Your task to perform on an android device: turn on showing notifications on the lock screen Image 0: 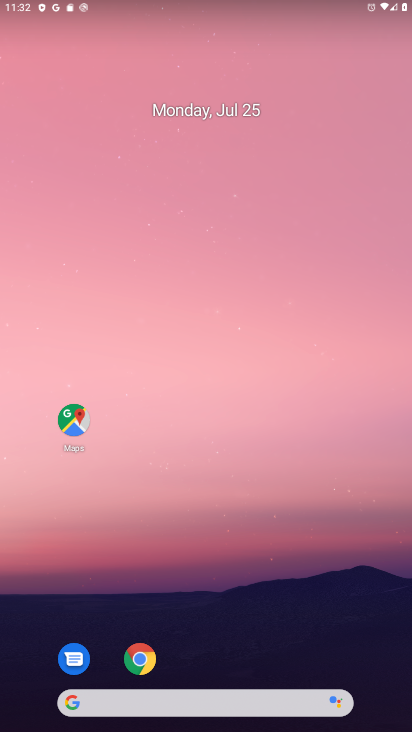
Step 0: drag from (264, 613) to (206, 110)
Your task to perform on an android device: turn on showing notifications on the lock screen Image 1: 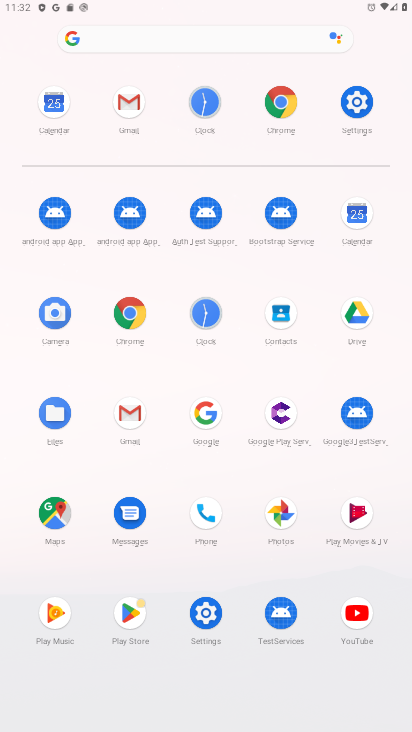
Step 1: click (350, 105)
Your task to perform on an android device: turn on showing notifications on the lock screen Image 2: 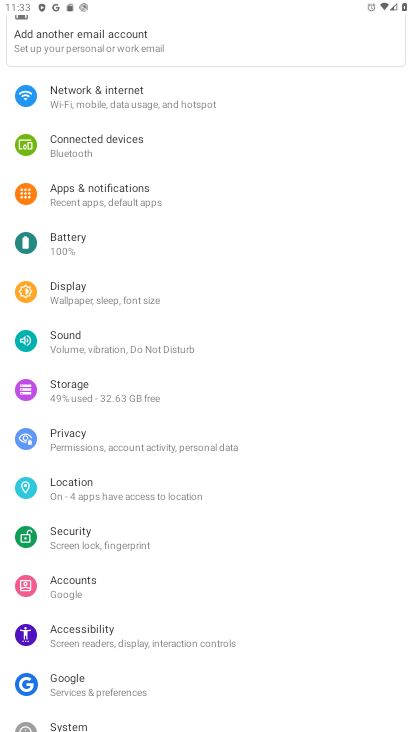
Step 2: click (92, 186)
Your task to perform on an android device: turn on showing notifications on the lock screen Image 3: 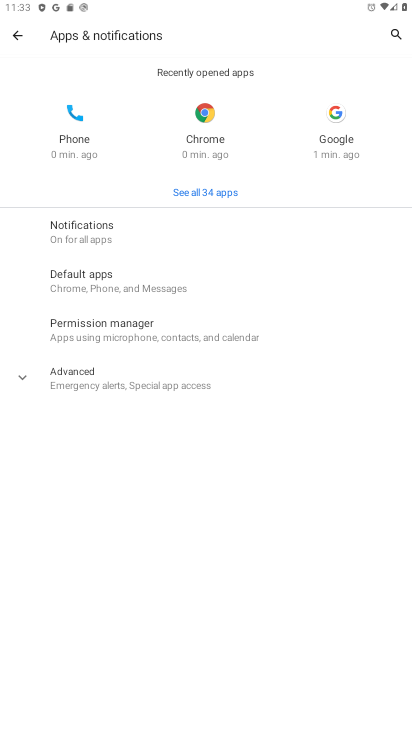
Step 3: click (79, 226)
Your task to perform on an android device: turn on showing notifications on the lock screen Image 4: 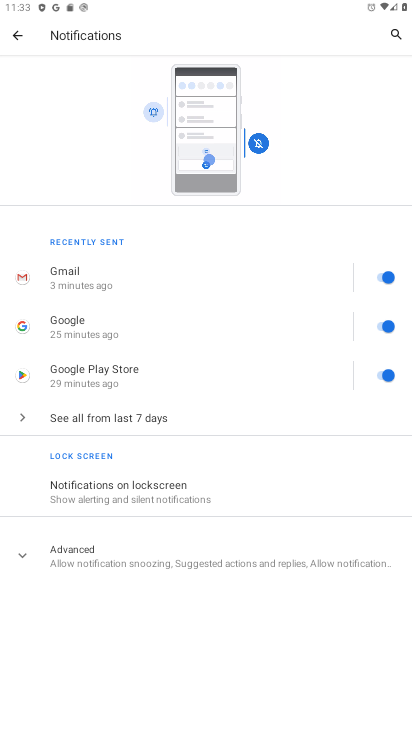
Step 4: click (127, 483)
Your task to perform on an android device: turn on showing notifications on the lock screen Image 5: 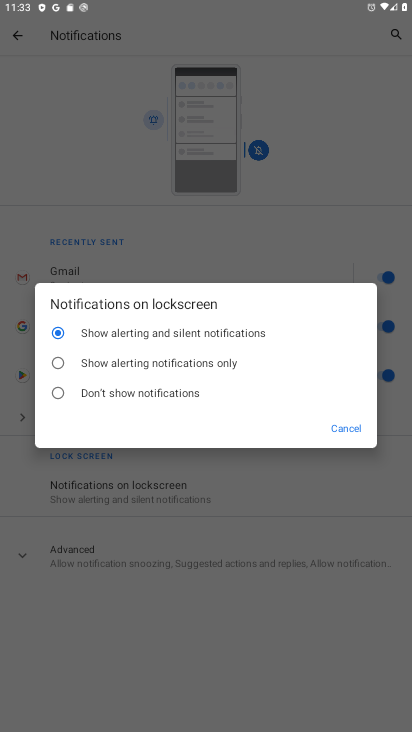
Step 5: task complete